Your task to perform on an android device: turn on showing notifications on the lock screen Image 0: 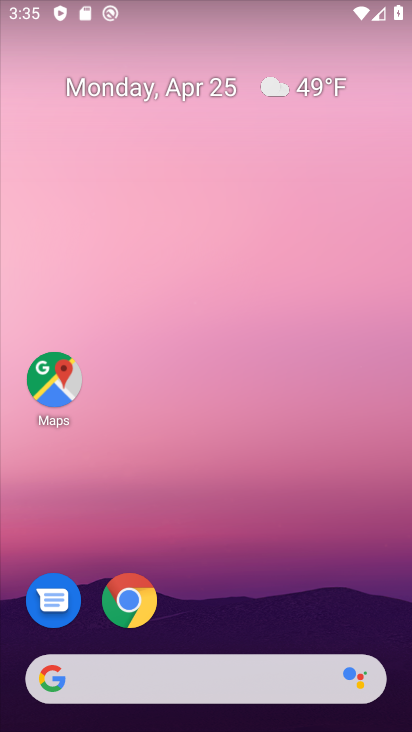
Step 0: drag from (255, 592) to (213, 0)
Your task to perform on an android device: turn on showing notifications on the lock screen Image 1: 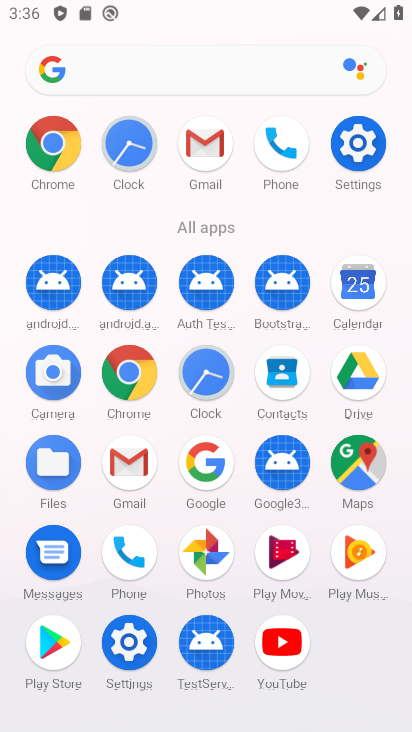
Step 1: click (356, 136)
Your task to perform on an android device: turn on showing notifications on the lock screen Image 2: 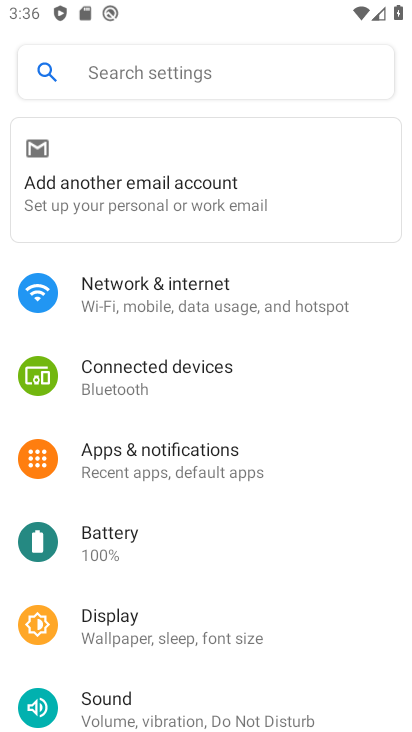
Step 2: click (214, 458)
Your task to perform on an android device: turn on showing notifications on the lock screen Image 3: 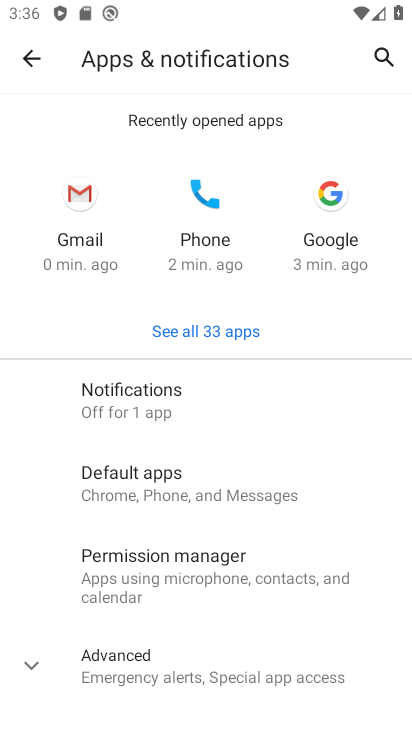
Step 3: click (242, 412)
Your task to perform on an android device: turn on showing notifications on the lock screen Image 4: 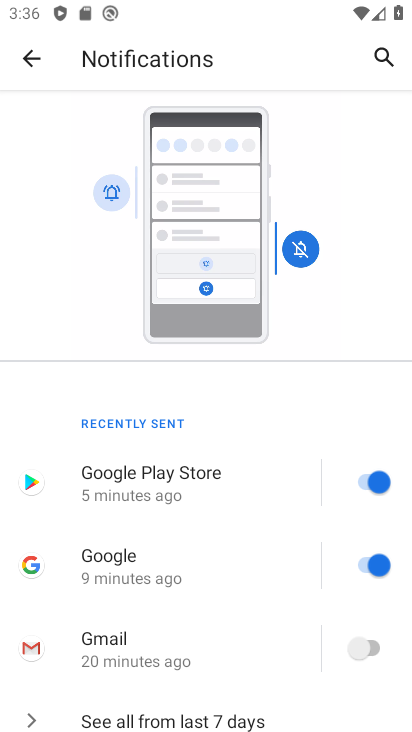
Step 4: task complete